Your task to perform on an android device: What is the news today? Image 0: 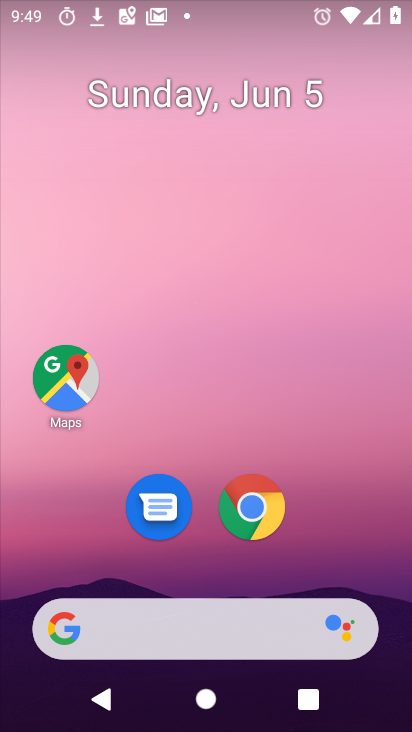
Step 0: drag from (253, 647) to (231, 135)
Your task to perform on an android device: What is the news today? Image 1: 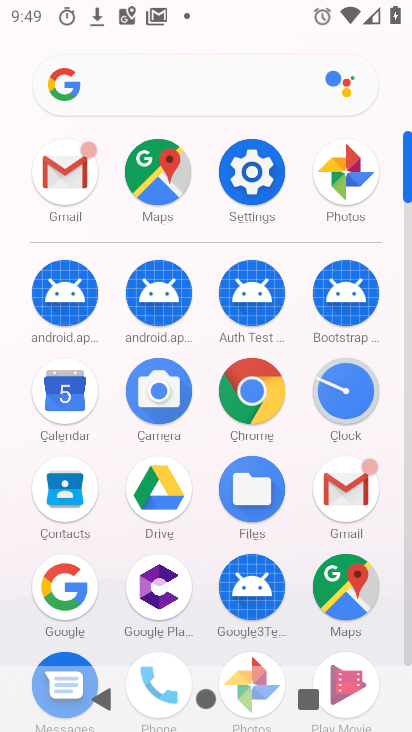
Step 1: click (134, 78)
Your task to perform on an android device: What is the news today? Image 2: 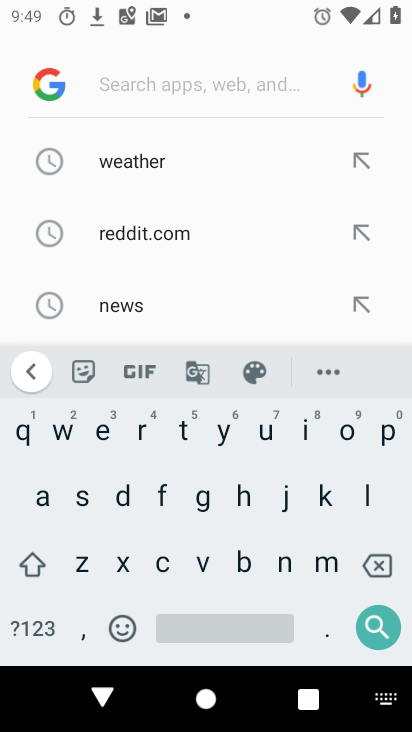
Step 2: click (141, 296)
Your task to perform on an android device: What is the news today? Image 3: 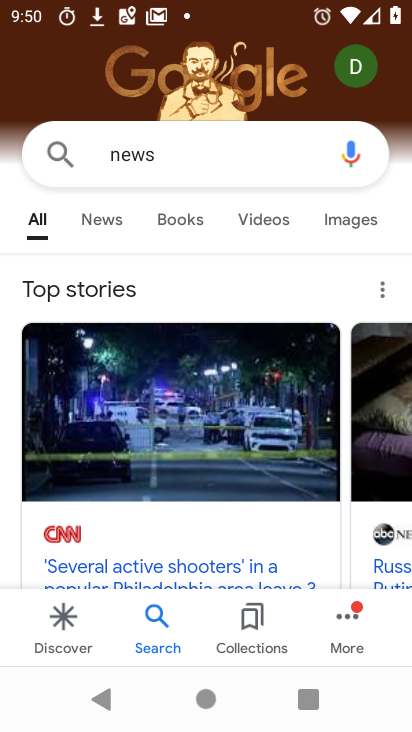
Step 3: task complete